Your task to perform on an android device: Open the phone app and click the voicemail tab. Image 0: 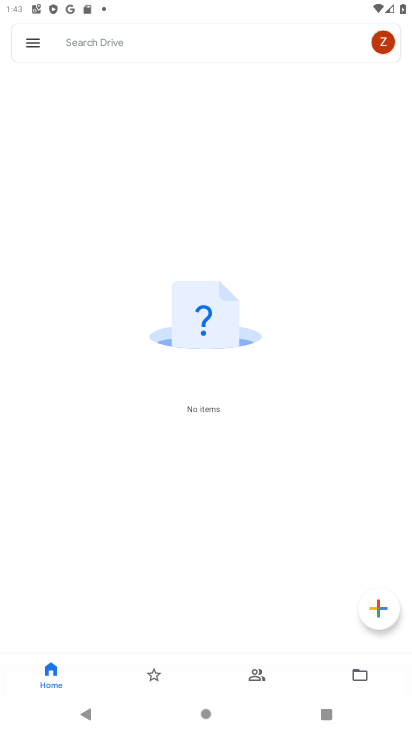
Step 0: press home button
Your task to perform on an android device: Open the phone app and click the voicemail tab. Image 1: 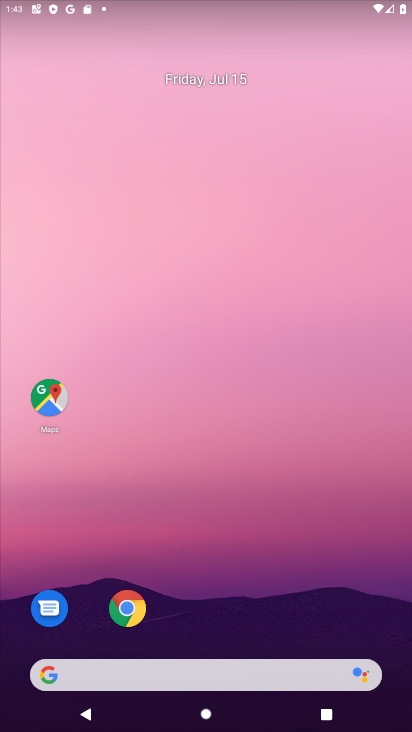
Step 1: drag from (148, 688) to (198, 83)
Your task to perform on an android device: Open the phone app and click the voicemail tab. Image 2: 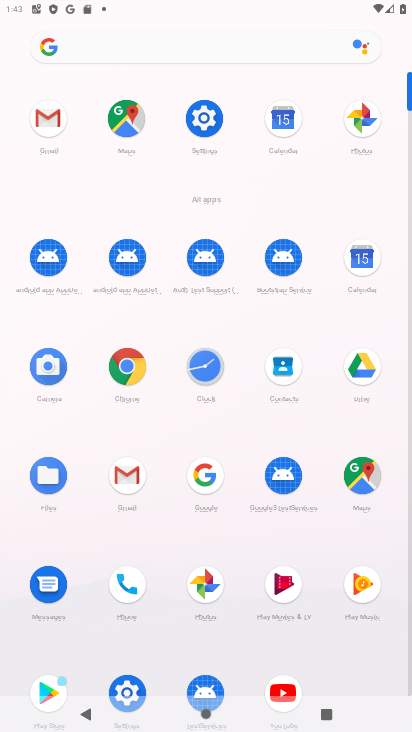
Step 2: click (123, 578)
Your task to perform on an android device: Open the phone app and click the voicemail tab. Image 3: 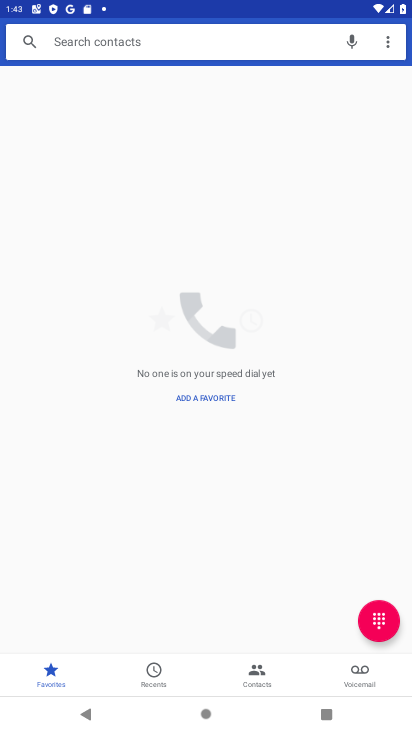
Step 3: click (363, 680)
Your task to perform on an android device: Open the phone app and click the voicemail tab. Image 4: 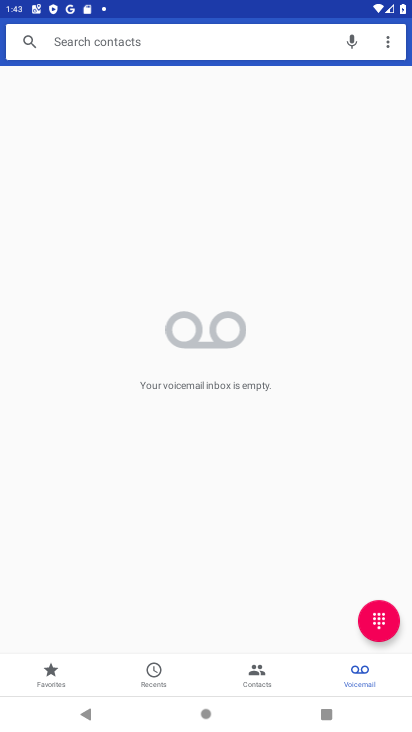
Step 4: task complete